Your task to perform on an android device: Open settings Image 0: 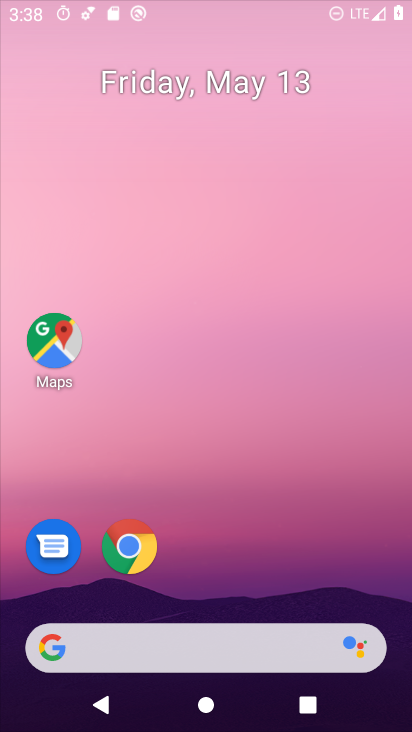
Step 0: drag from (247, 626) to (250, 70)
Your task to perform on an android device: Open settings Image 1: 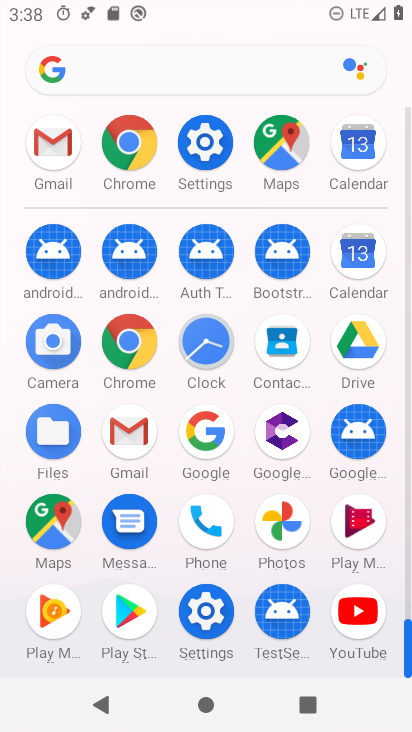
Step 1: click (213, 155)
Your task to perform on an android device: Open settings Image 2: 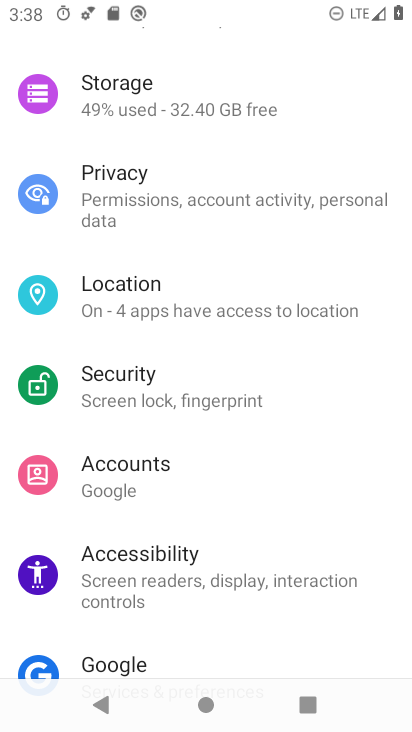
Step 2: task complete